Your task to perform on an android device: change the clock display to digital Image 0: 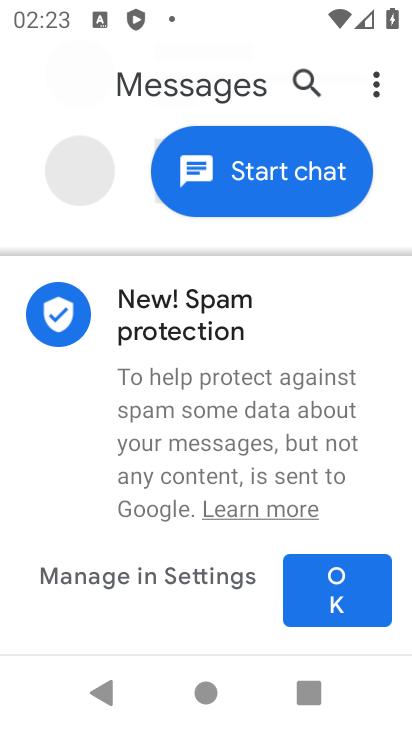
Step 0: press home button
Your task to perform on an android device: change the clock display to digital Image 1: 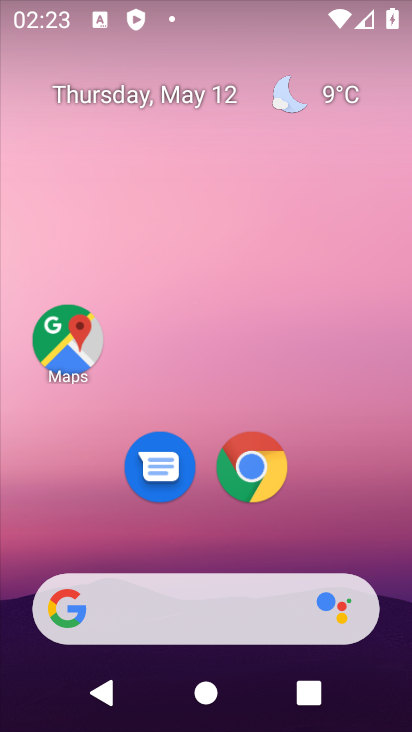
Step 1: drag from (307, 483) to (347, 178)
Your task to perform on an android device: change the clock display to digital Image 2: 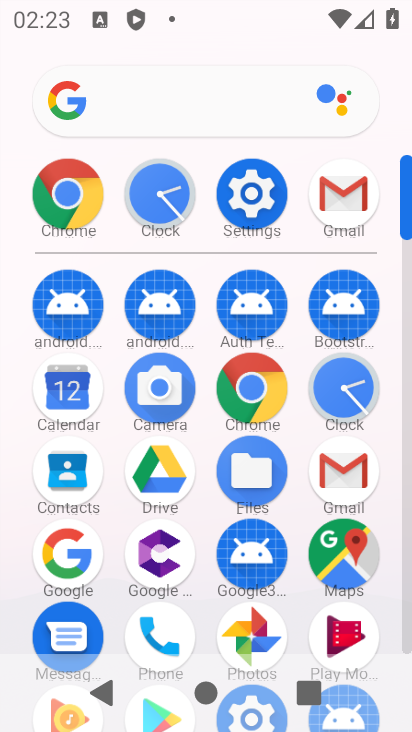
Step 2: click (338, 401)
Your task to perform on an android device: change the clock display to digital Image 3: 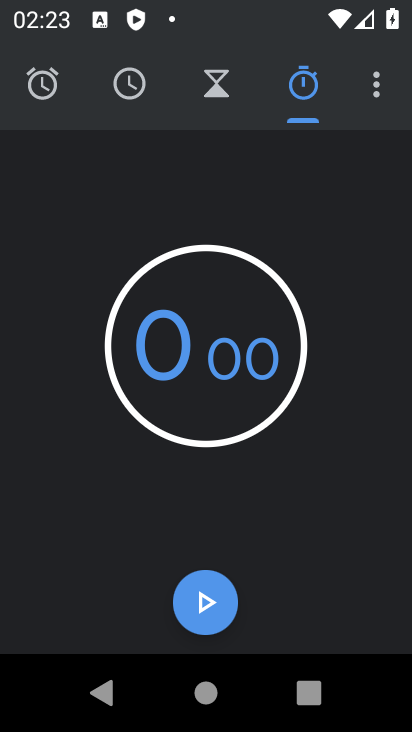
Step 3: click (360, 89)
Your task to perform on an android device: change the clock display to digital Image 4: 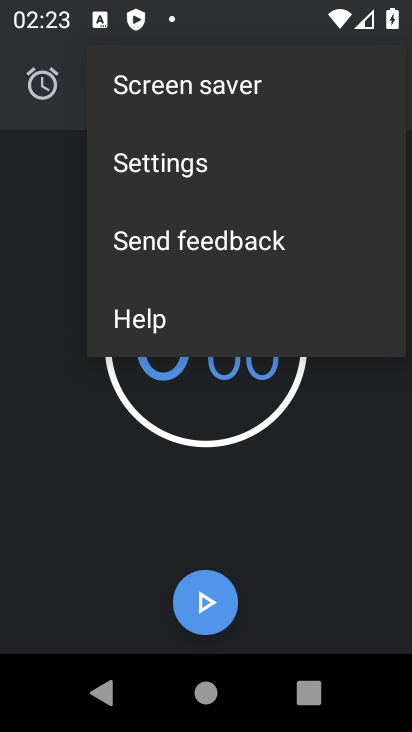
Step 4: click (207, 173)
Your task to perform on an android device: change the clock display to digital Image 5: 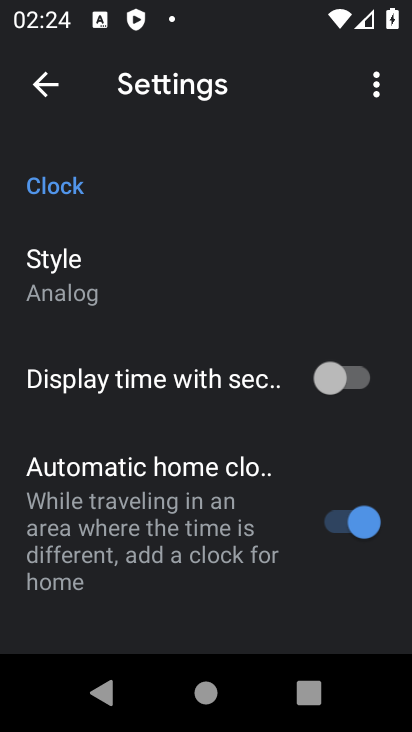
Step 5: click (89, 285)
Your task to perform on an android device: change the clock display to digital Image 6: 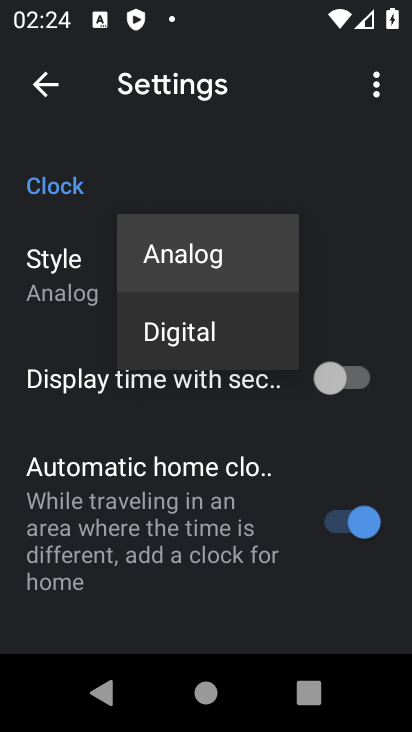
Step 6: click (185, 330)
Your task to perform on an android device: change the clock display to digital Image 7: 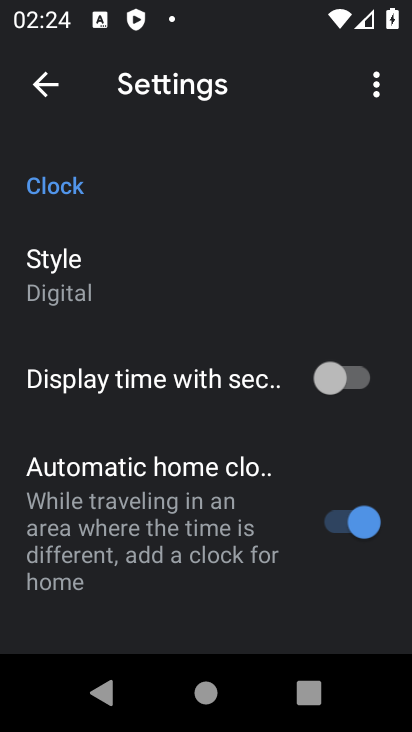
Step 7: task complete